Your task to perform on an android device: Open Google Chrome Image 0: 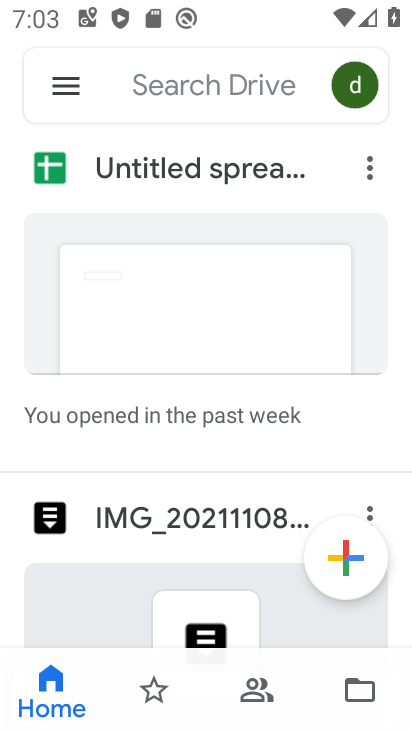
Step 0: press home button
Your task to perform on an android device: Open Google Chrome Image 1: 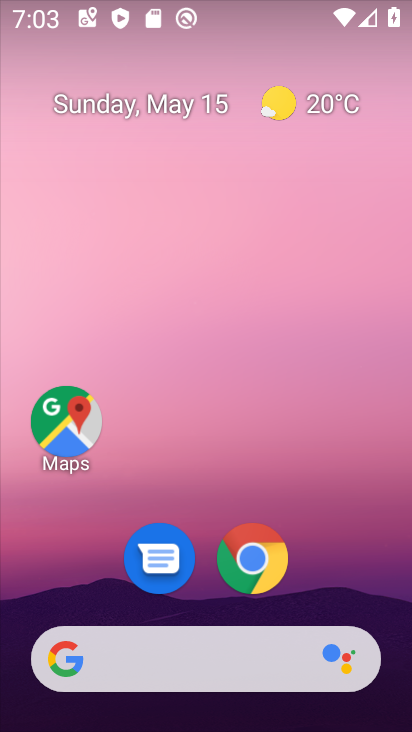
Step 1: click (258, 551)
Your task to perform on an android device: Open Google Chrome Image 2: 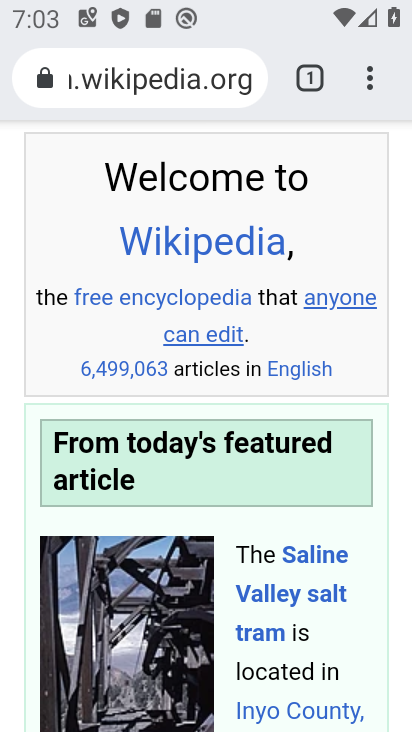
Step 2: click (366, 69)
Your task to perform on an android device: Open Google Chrome Image 3: 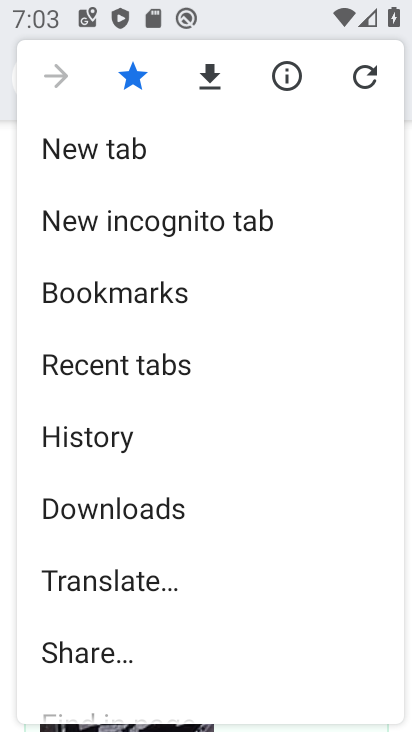
Step 3: click (82, 139)
Your task to perform on an android device: Open Google Chrome Image 4: 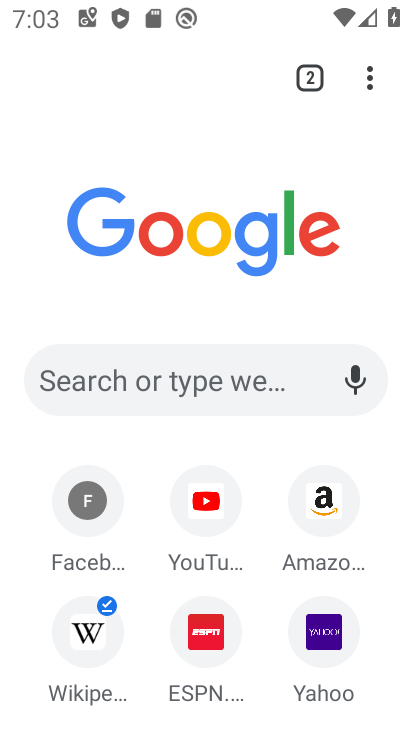
Step 4: task complete